Your task to perform on an android device: Open Google Maps Image 0: 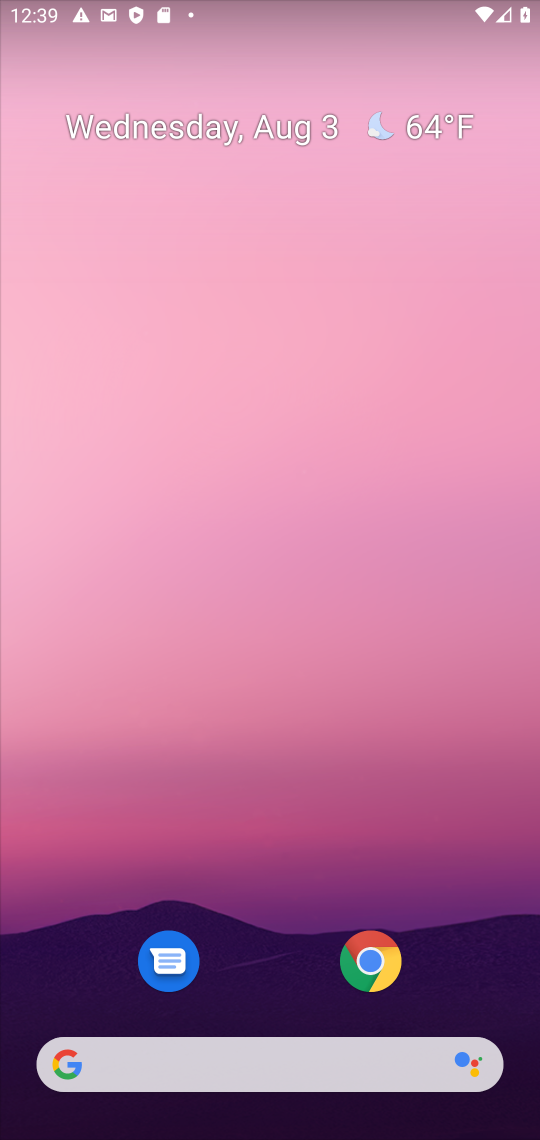
Step 0: drag from (271, 893) to (240, 15)
Your task to perform on an android device: Open Google Maps Image 1: 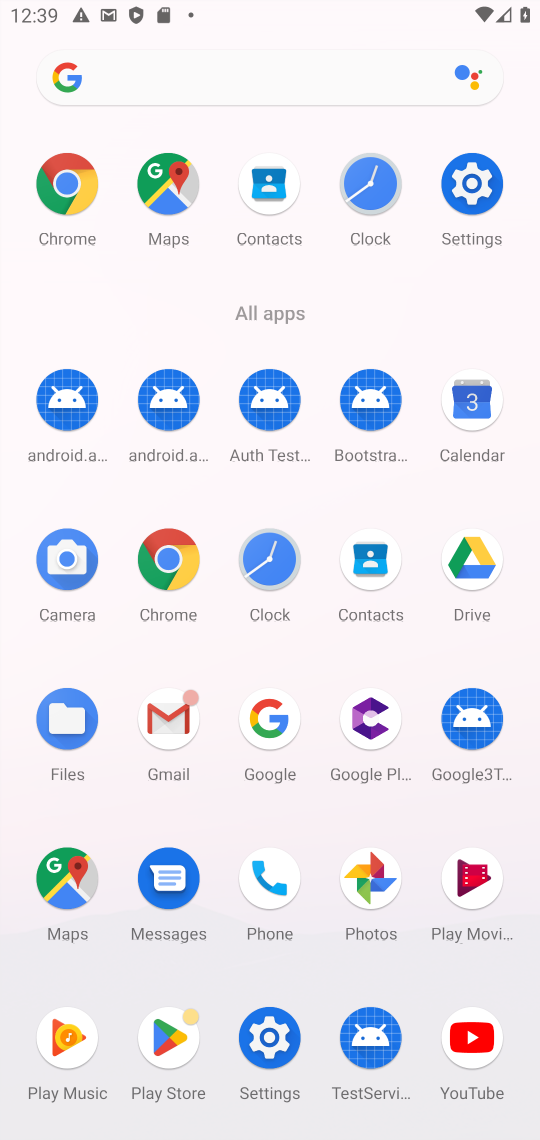
Step 1: click (169, 193)
Your task to perform on an android device: Open Google Maps Image 2: 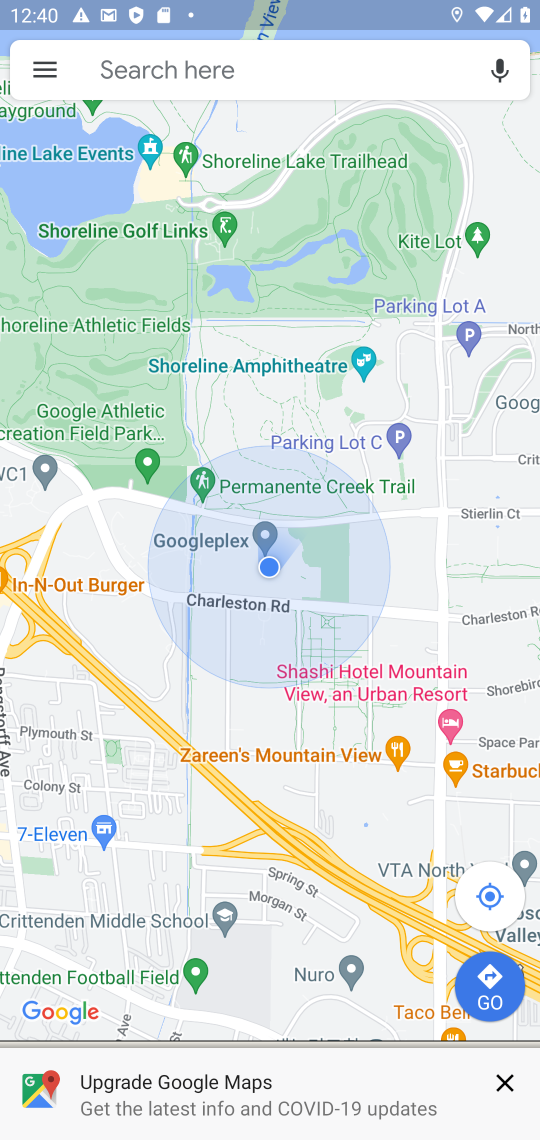
Step 2: task complete